Your task to perform on an android device: open chrome privacy settings Image 0: 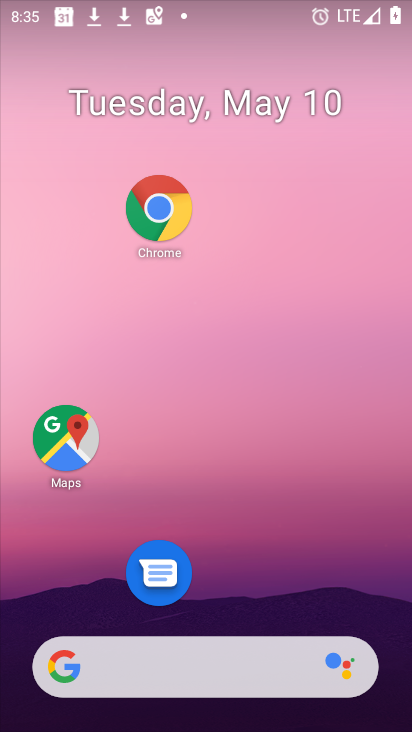
Step 0: drag from (315, 645) to (250, 286)
Your task to perform on an android device: open chrome privacy settings Image 1: 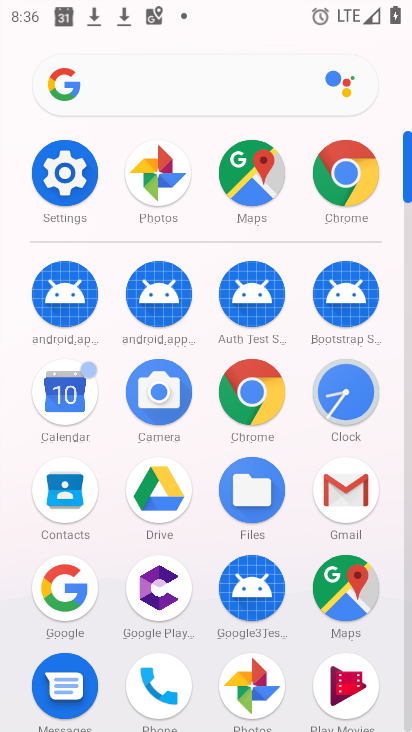
Step 1: click (82, 192)
Your task to perform on an android device: open chrome privacy settings Image 2: 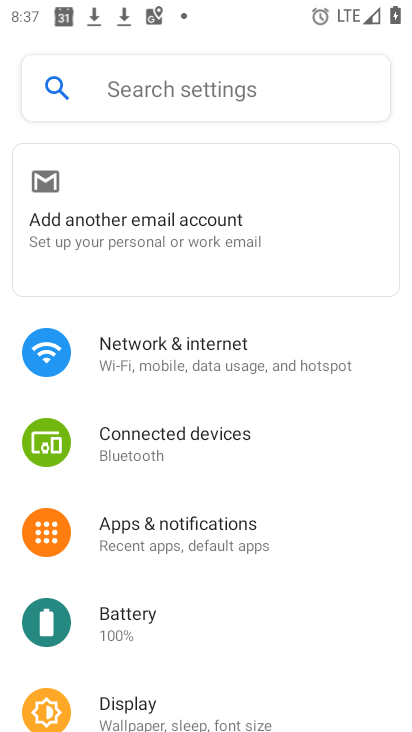
Step 2: press home button
Your task to perform on an android device: open chrome privacy settings Image 3: 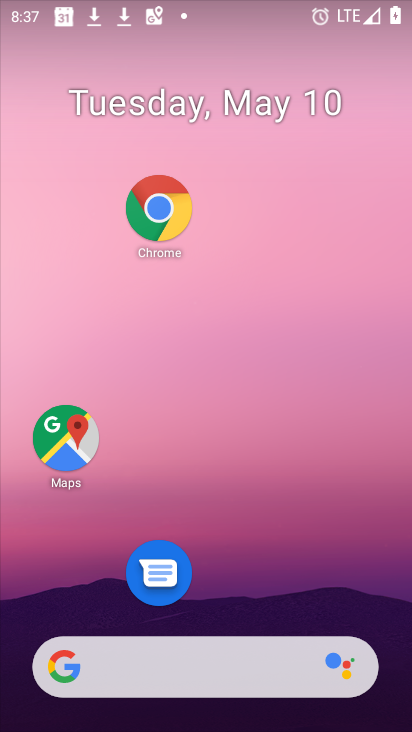
Step 3: drag from (232, 709) to (287, 241)
Your task to perform on an android device: open chrome privacy settings Image 4: 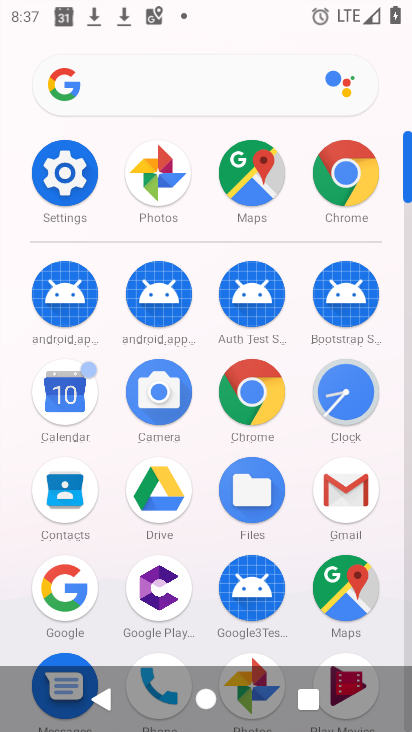
Step 4: click (353, 169)
Your task to perform on an android device: open chrome privacy settings Image 5: 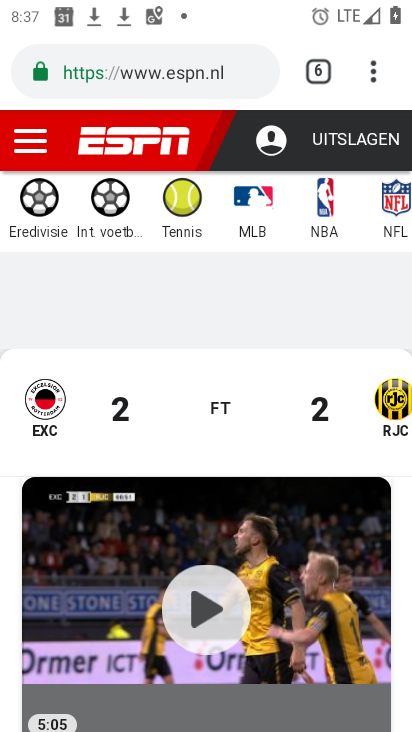
Step 5: click (373, 72)
Your task to perform on an android device: open chrome privacy settings Image 6: 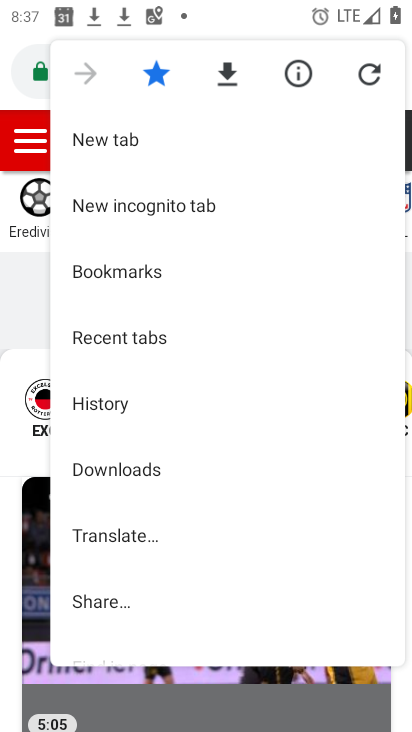
Step 6: drag from (121, 501) to (139, 209)
Your task to perform on an android device: open chrome privacy settings Image 7: 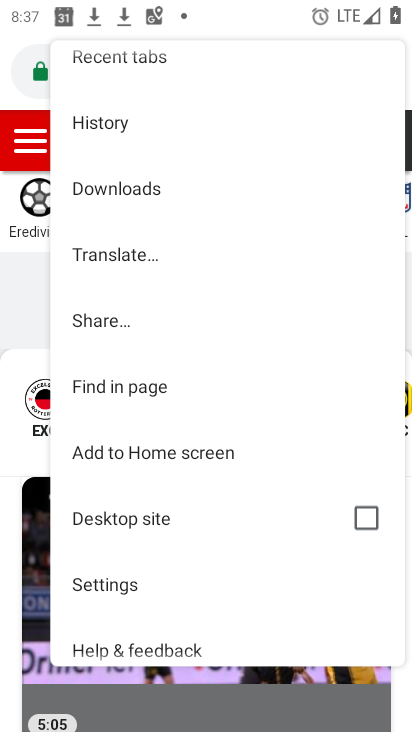
Step 7: click (91, 592)
Your task to perform on an android device: open chrome privacy settings Image 8: 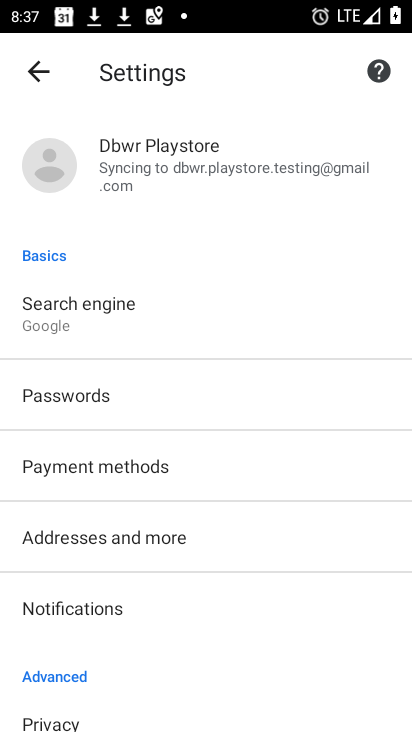
Step 8: drag from (97, 585) to (150, 283)
Your task to perform on an android device: open chrome privacy settings Image 9: 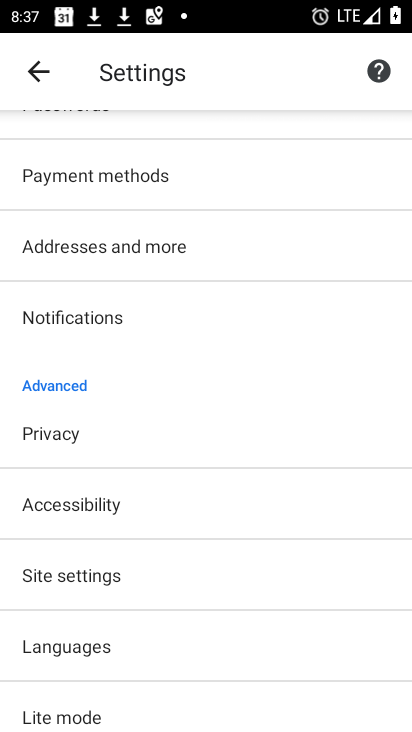
Step 9: click (95, 435)
Your task to perform on an android device: open chrome privacy settings Image 10: 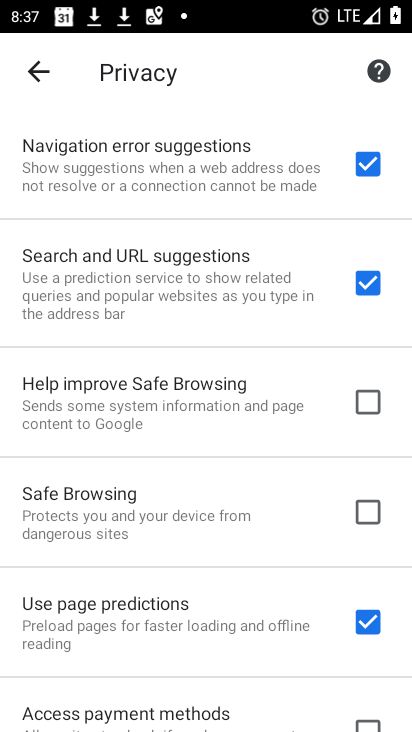
Step 10: task complete